Your task to perform on an android device: Go to accessibility settings Image 0: 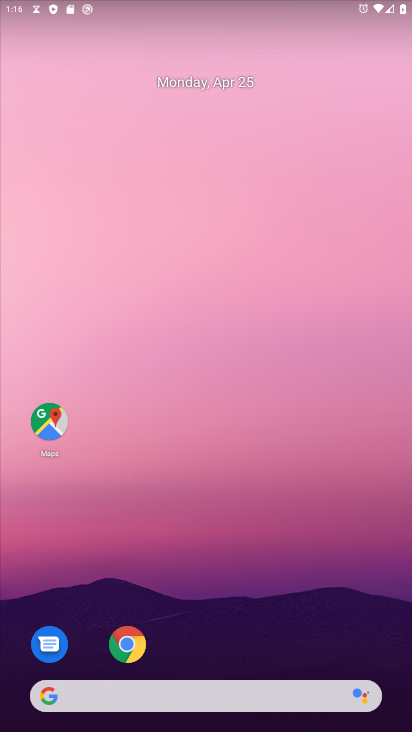
Step 0: drag from (385, 617) to (401, 2)
Your task to perform on an android device: Go to accessibility settings Image 1: 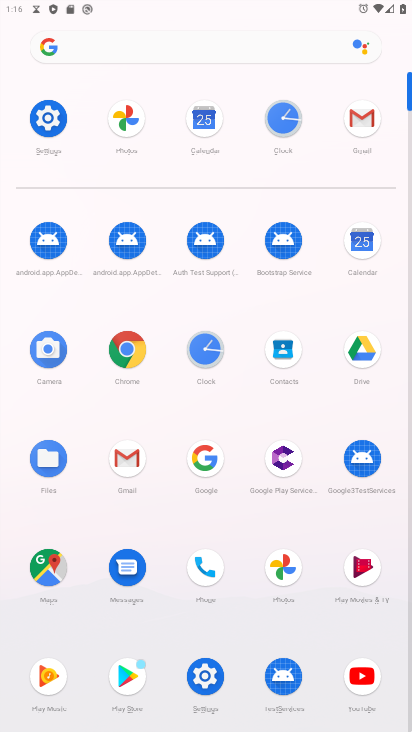
Step 1: click (45, 127)
Your task to perform on an android device: Go to accessibility settings Image 2: 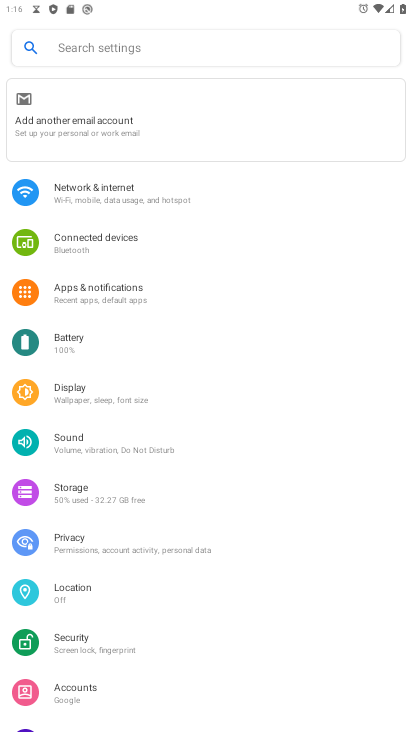
Step 2: drag from (263, 616) to (291, 211)
Your task to perform on an android device: Go to accessibility settings Image 3: 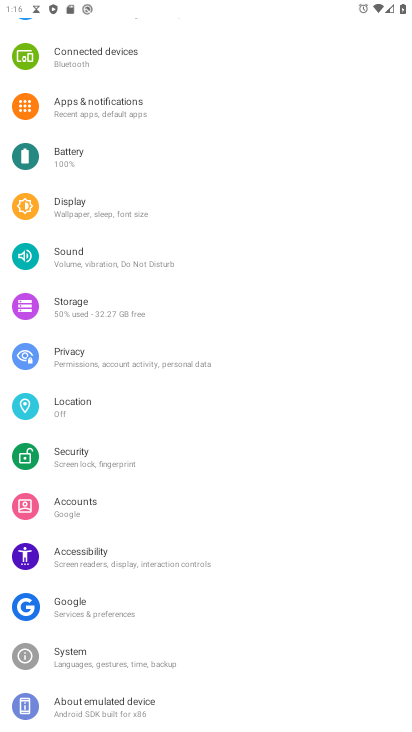
Step 3: click (77, 564)
Your task to perform on an android device: Go to accessibility settings Image 4: 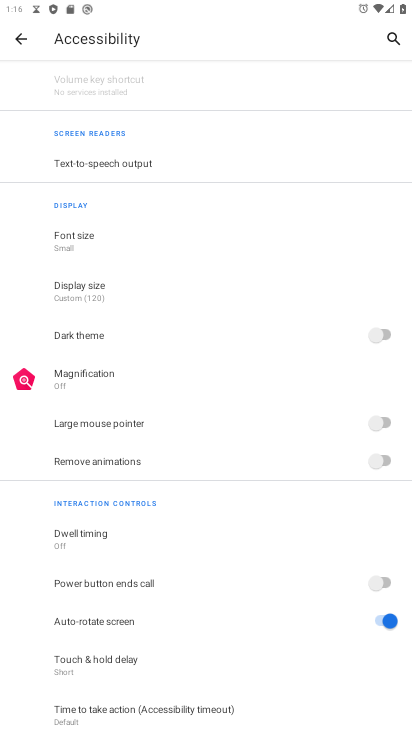
Step 4: task complete